Your task to perform on an android device: turn on sleep mode Image 0: 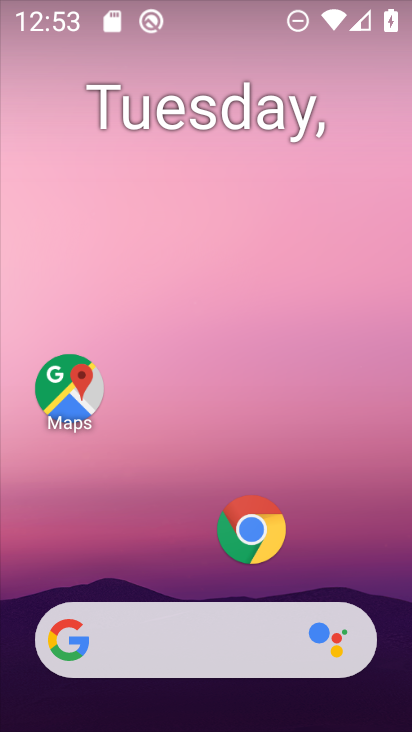
Step 0: press home button
Your task to perform on an android device: turn on sleep mode Image 1: 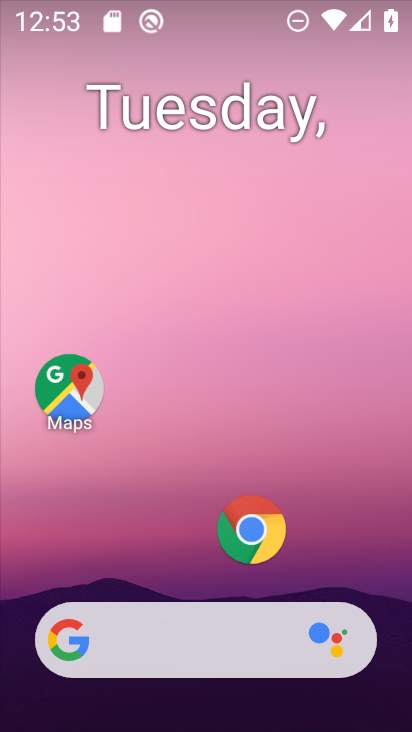
Step 1: drag from (178, 655) to (230, 308)
Your task to perform on an android device: turn on sleep mode Image 2: 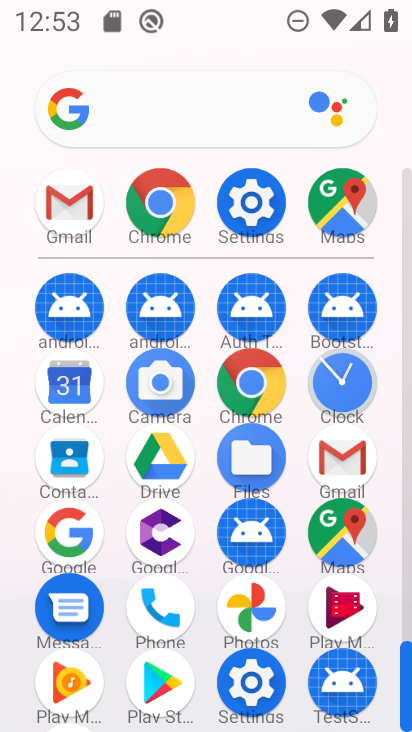
Step 2: click (252, 192)
Your task to perform on an android device: turn on sleep mode Image 3: 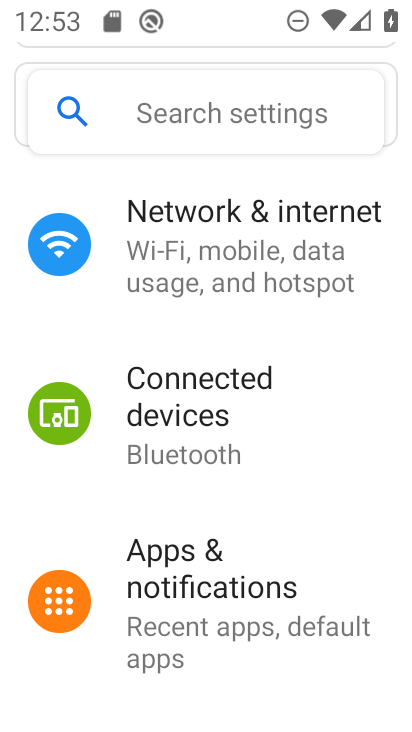
Step 3: click (170, 120)
Your task to perform on an android device: turn on sleep mode Image 4: 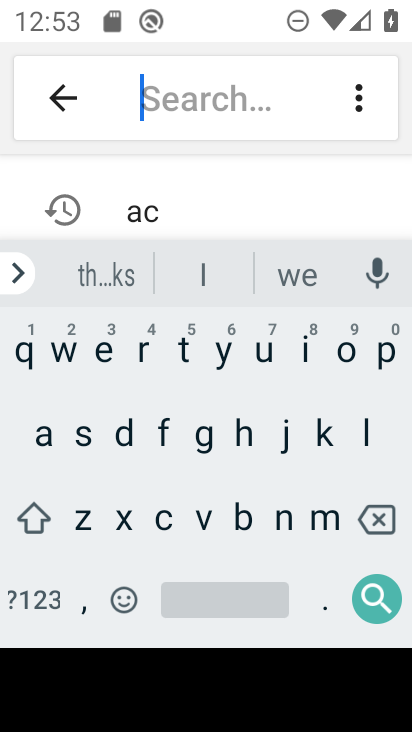
Step 4: click (83, 429)
Your task to perform on an android device: turn on sleep mode Image 5: 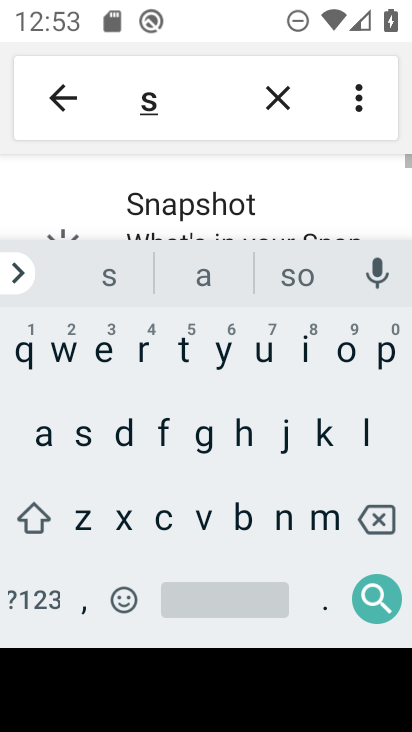
Step 5: click (380, 441)
Your task to perform on an android device: turn on sleep mode Image 6: 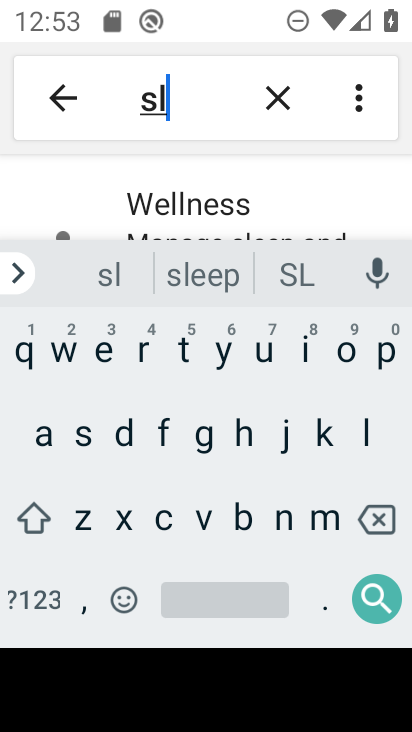
Step 6: click (182, 190)
Your task to perform on an android device: turn on sleep mode Image 7: 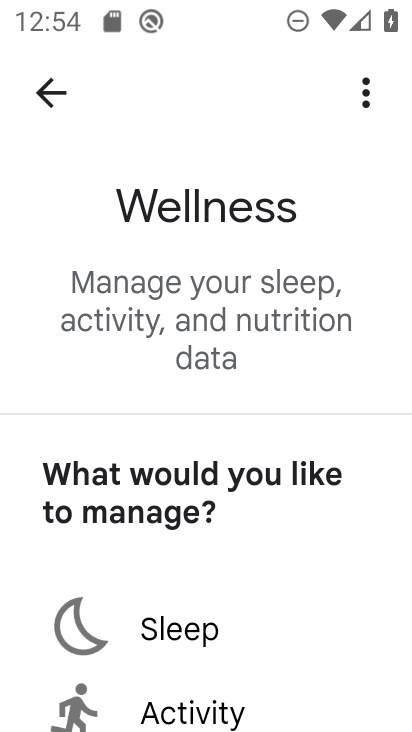
Step 7: click (166, 627)
Your task to perform on an android device: turn on sleep mode Image 8: 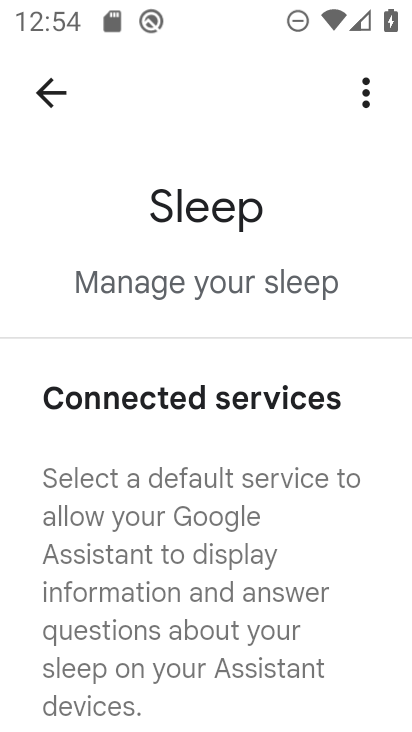
Step 8: task complete